Your task to perform on an android device: Open calendar and show me the fourth week of next month Image 0: 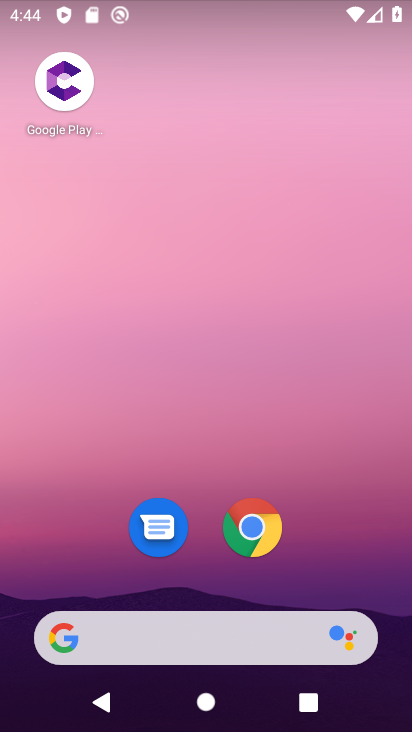
Step 0: drag from (319, 558) to (346, 52)
Your task to perform on an android device: Open calendar and show me the fourth week of next month Image 1: 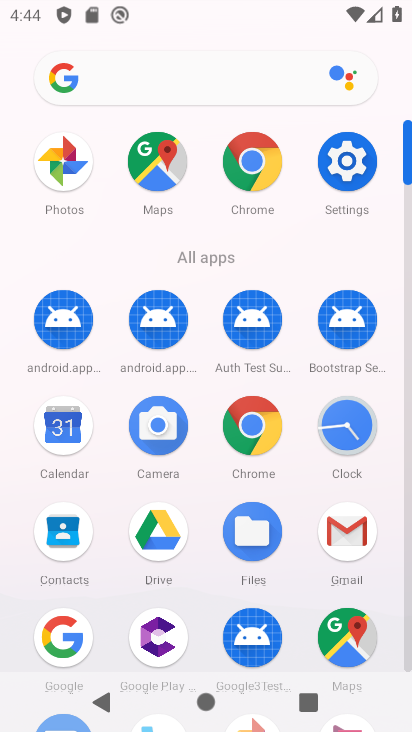
Step 1: click (73, 434)
Your task to perform on an android device: Open calendar and show me the fourth week of next month Image 2: 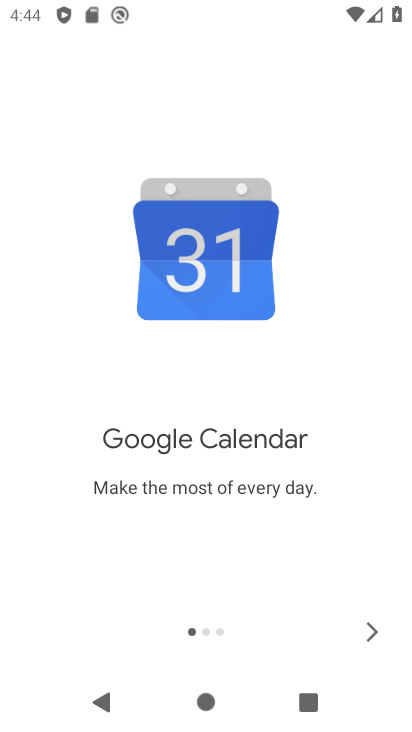
Step 2: click (366, 628)
Your task to perform on an android device: Open calendar and show me the fourth week of next month Image 3: 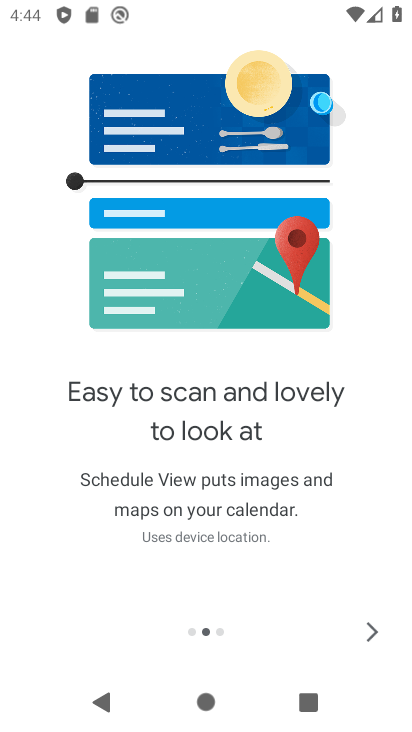
Step 3: click (366, 628)
Your task to perform on an android device: Open calendar and show me the fourth week of next month Image 4: 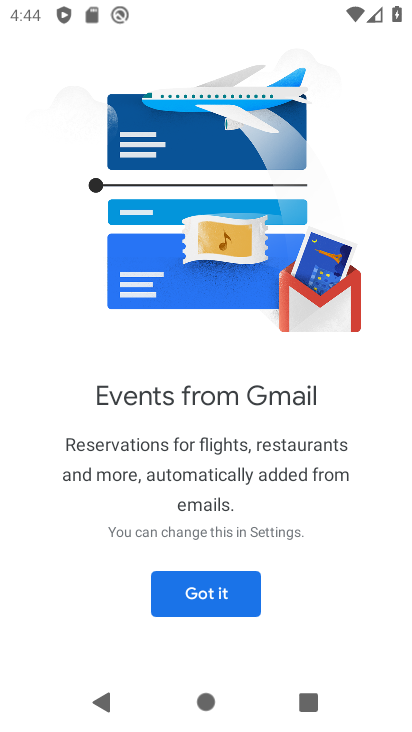
Step 4: click (221, 584)
Your task to perform on an android device: Open calendar and show me the fourth week of next month Image 5: 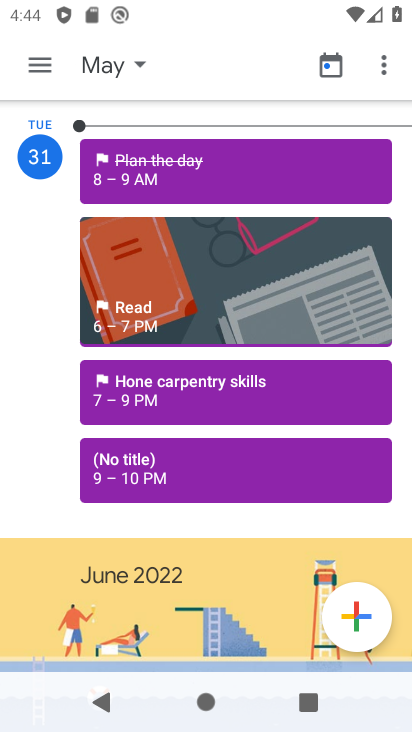
Step 5: click (91, 60)
Your task to perform on an android device: Open calendar and show me the fourth week of next month Image 6: 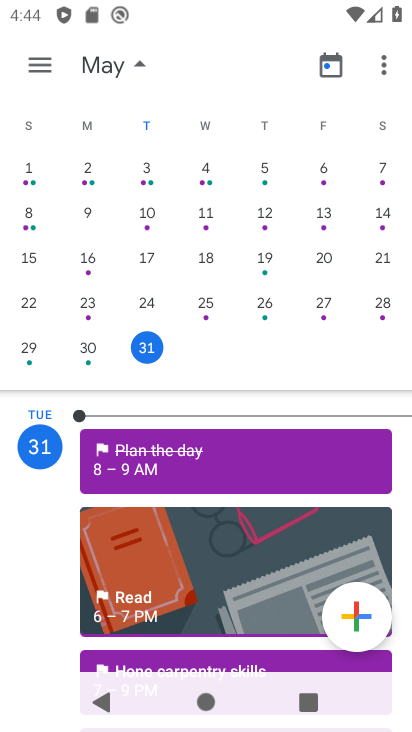
Step 6: drag from (350, 197) to (47, 213)
Your task to perform on an android device: Open calendar and show me the fourth week of next month Image 7: 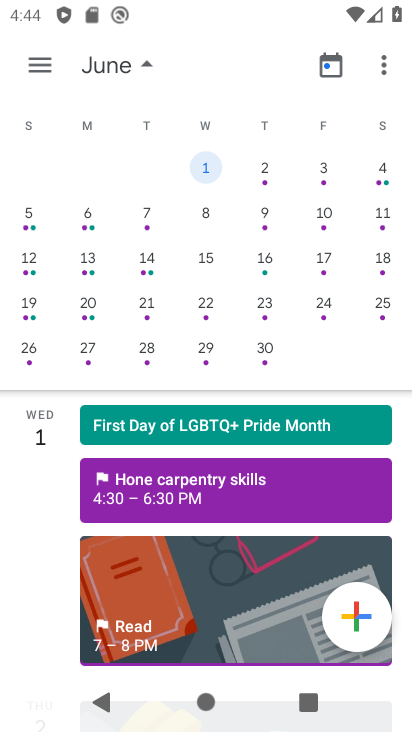
Step 7: click (204, 339)
Your task to perform on an android device: Open calendar and show me the fourth week of next month Image 8: 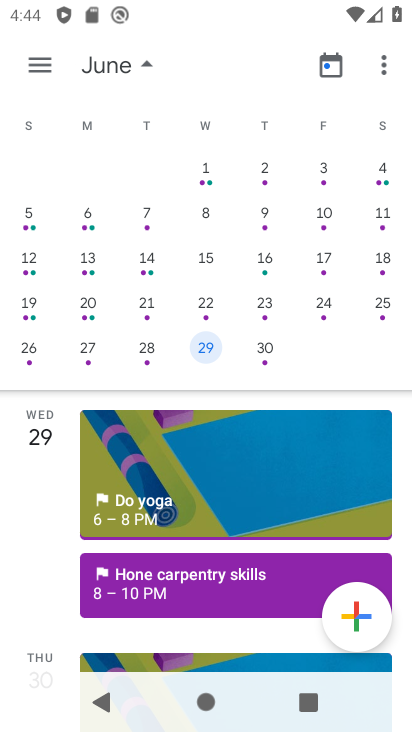
Step 8: task complete